Your task to perform on an android device: Open location settings Image 0: 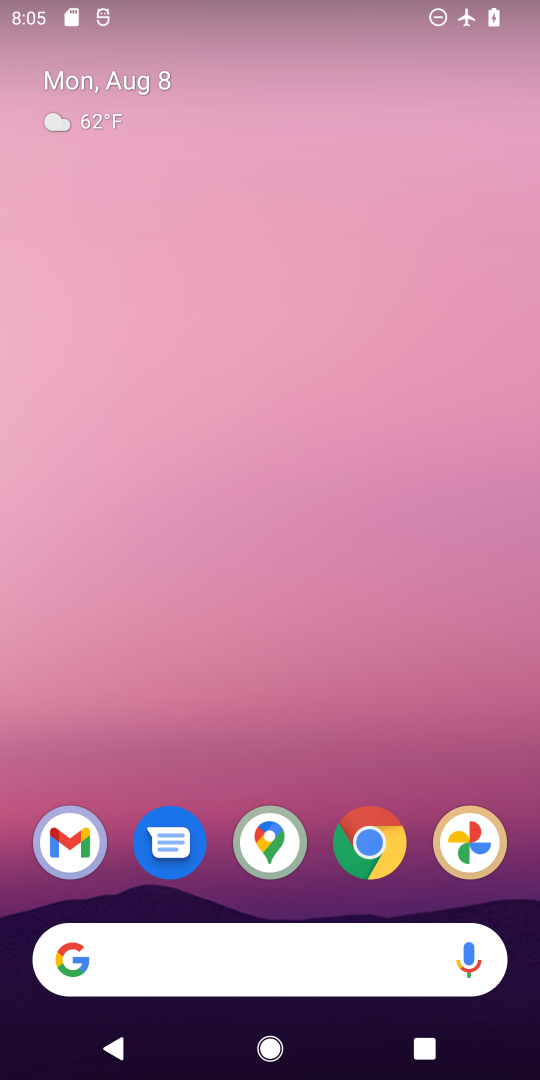
Step 0: drag from (336, 899) to (248, 195)
Your task to perform on an android device: Open location settings Image 1: 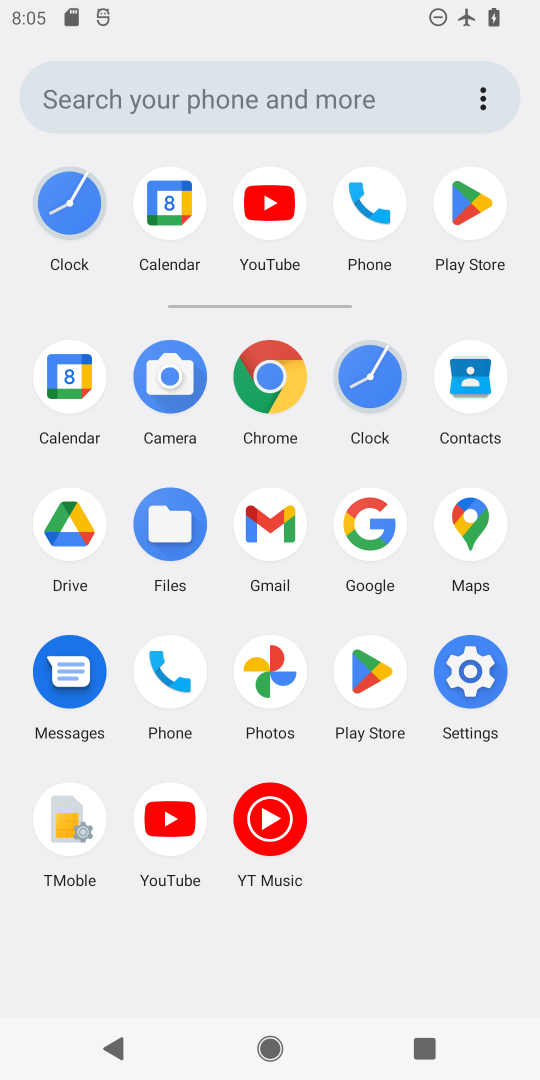
Step 1: click (462, 667)
Your task to perform on an android device: Open location settings Image 2: 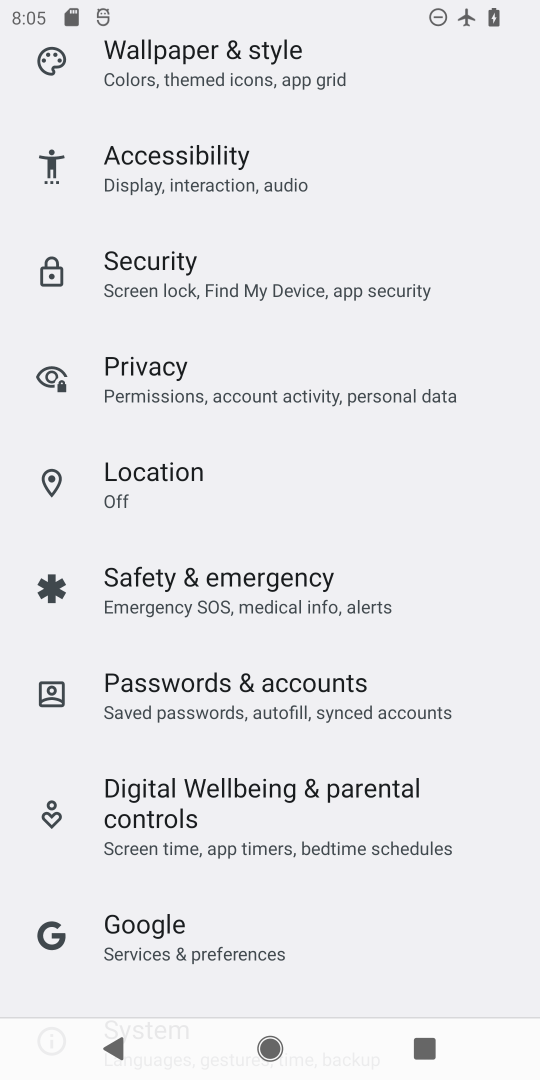
Step 2: click (198, 496)
Your task to perform on an android device: Open location settings Image 3: 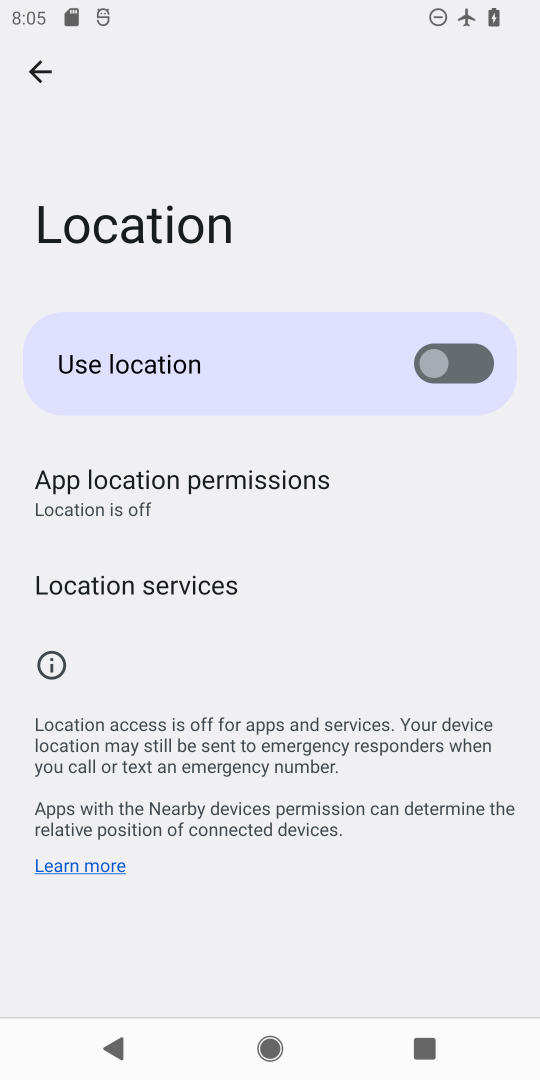
Step 3: task complete